Your task to perform on an android device: When is my next appointment? Image 0: 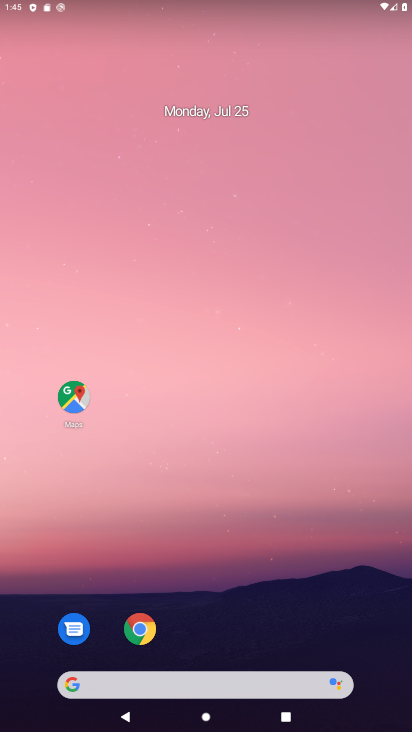
Step 0: drag from (233, 611) to (273, 56)
Your task to perform on an android device: When is my next appointment? Image 1: 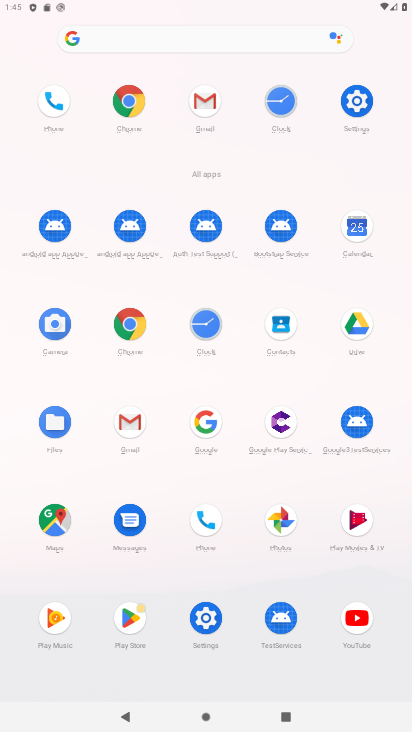
Step 1: click (348, 225)
Your task to perform on an android device: When is my next appointment? Image 2: 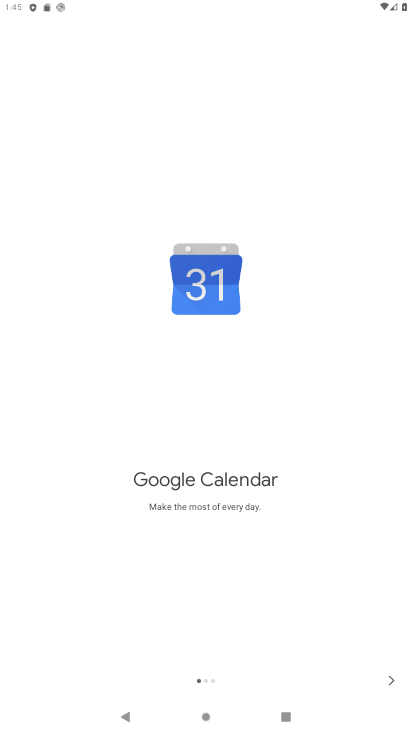
Step 2: click (381, 674)
Your task to perform on an android device: When is my next appointment? Image 3: 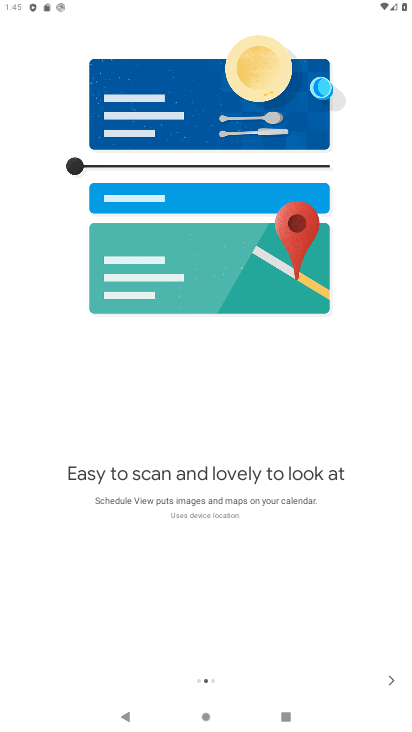
Step 3: click (390, 685)
Your task to perform on an android device: When is my next appointment? Image 4: 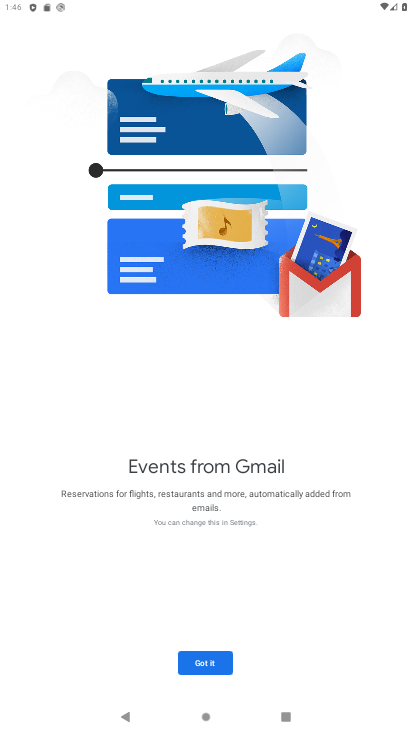
Step 4: click (217, 653)
Your task to perform on an android device: When is my next appointment? Image 5: 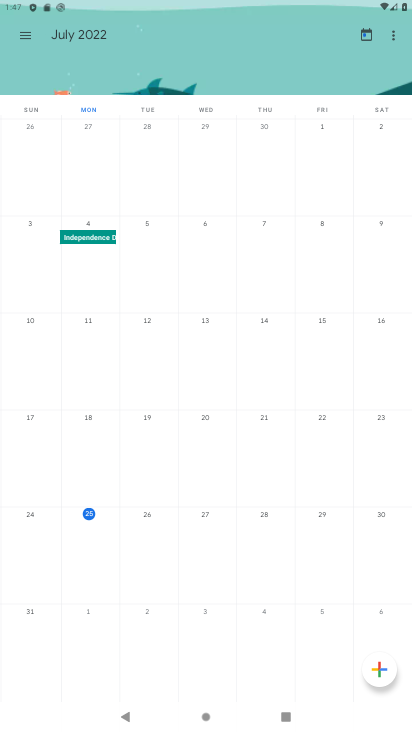
Step 5: task complete